Your task to perform on an android device: toggle translation in the chrome app Image 0: 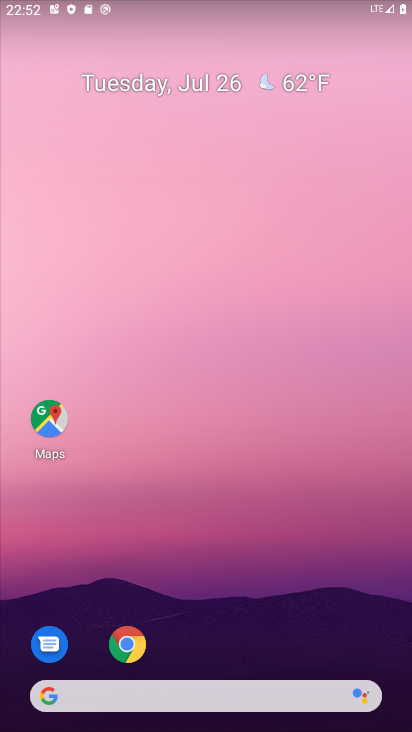
Step 0: click (131, 646)
Your task to perform on an android device: toggle translation in the chrome app Image 1: 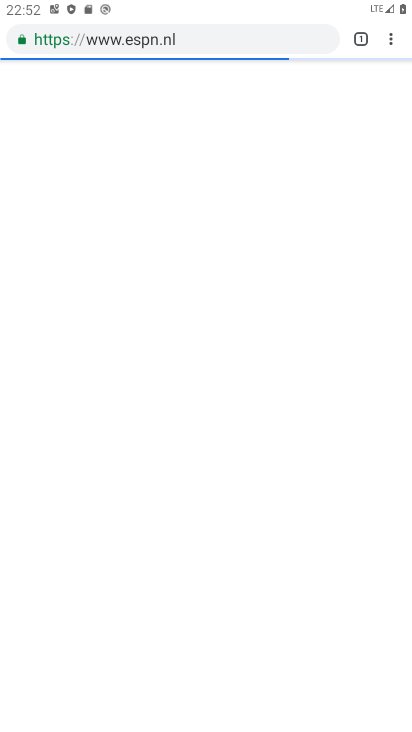
Step 1: click (389, 38)
Your task to perform on an android device: toggle translation in the chrome app Image 2: 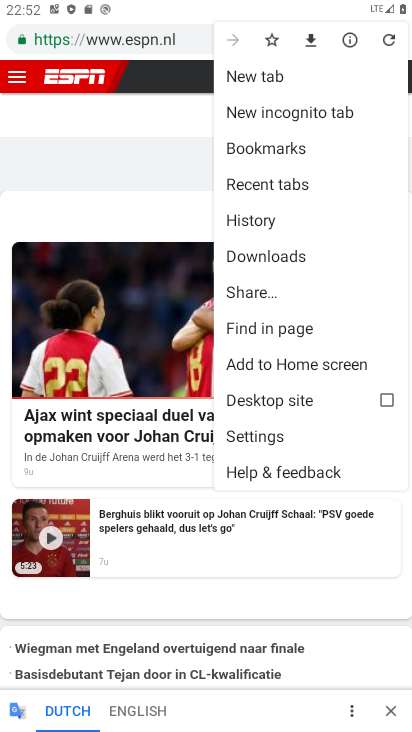
Step 2: click (242, 431)
Your task to perform on an android device: toggle translation in the chrome app Image 3: 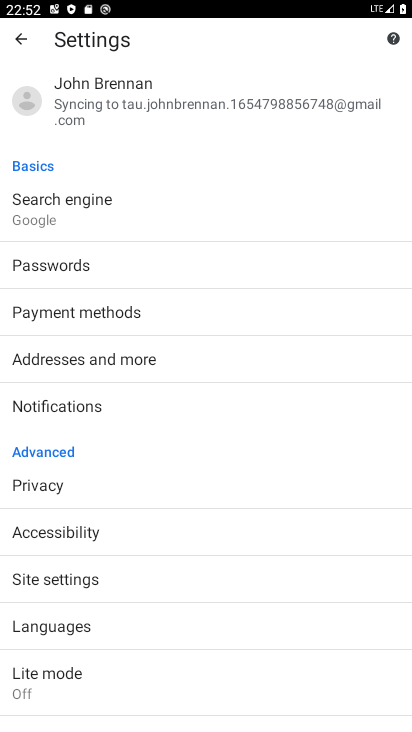
Step 3: click (55, 623)
Your task to perform on an android device: toggle translation in the chrome app Image 4: 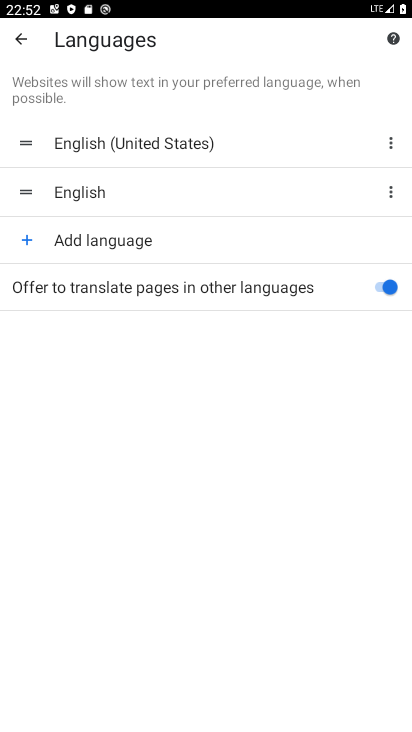
Step 4: click (387, 288)
Your task to perform on an android device: toggle translation in the chrome app Image 5: 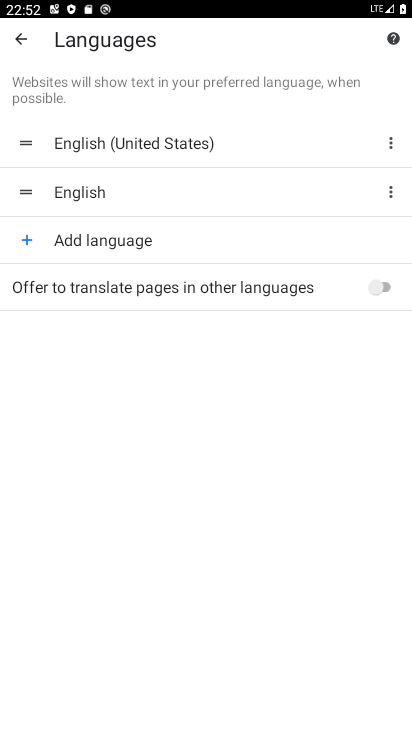
Step 5: task complete